Your task to perform on an android device: choose inbox layout in the gmail app Image 0: 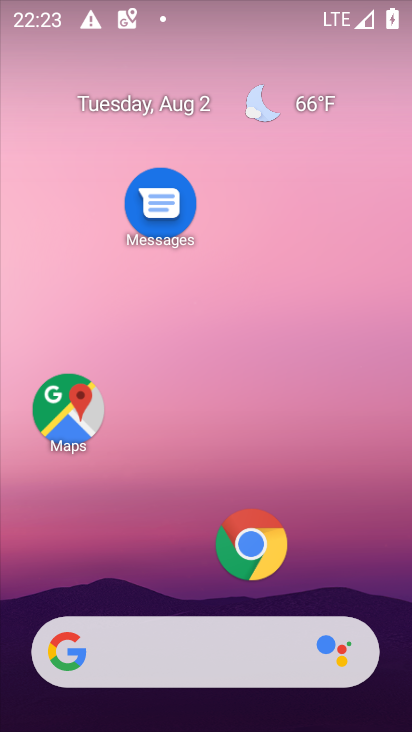
Step 0: drag from (187, 567) to (224, 113)
Your task to perform on an android device: choose inbox layout in the gmail app Image 1: 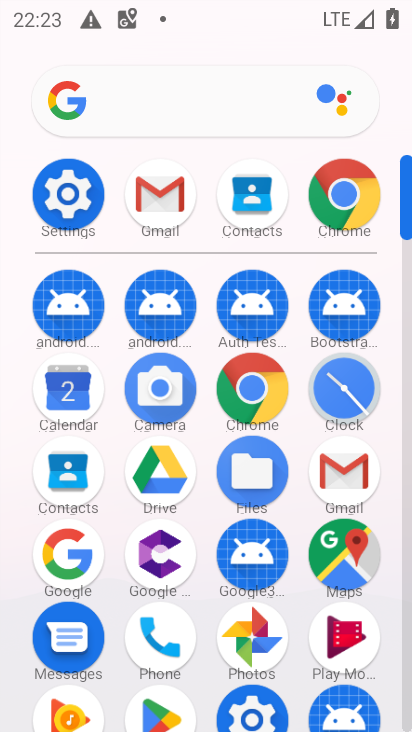
Step 1: click (190, 215)
Your task to perform on an android device: choose inbox layout in the gmail app Image 2: 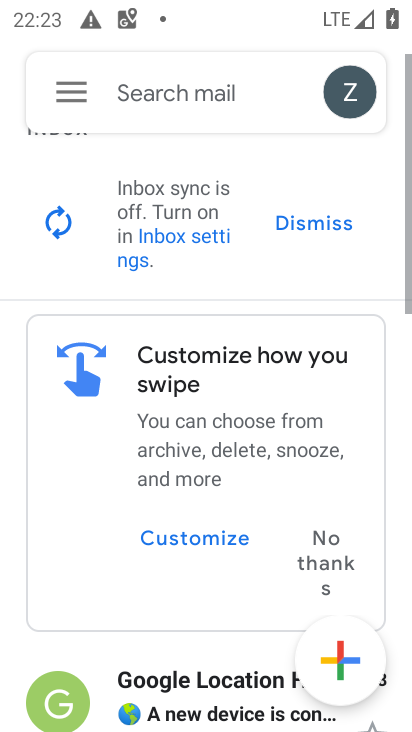
Step 2: click (73, 101)
Your task to perform on an android device: choose inbox layout in the gmail app Image 3: 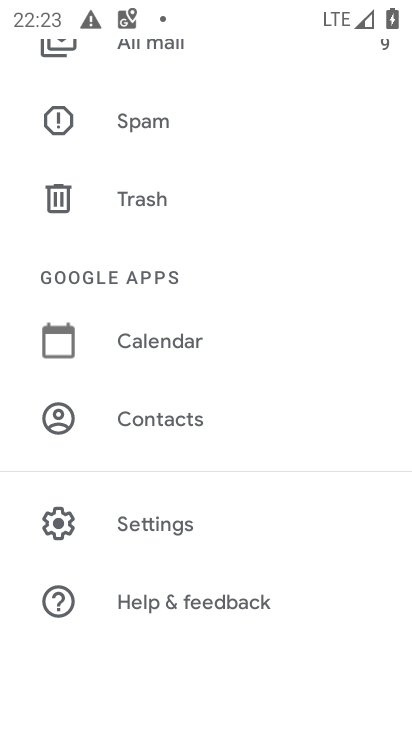
Step 3: click (177, 517)
Your task to perform on an android device: choose inbox layout in the gmail app Image 4: 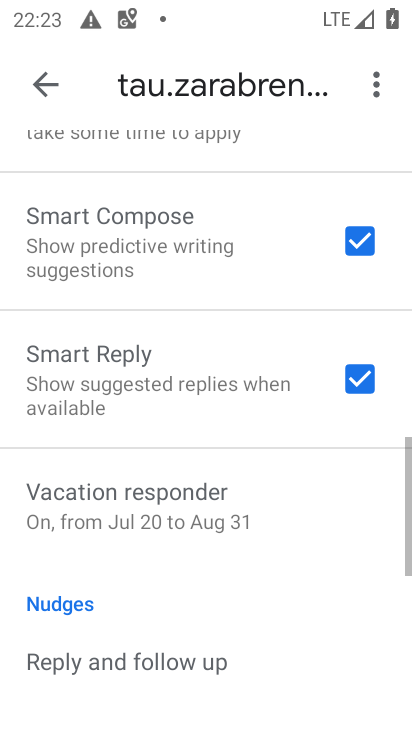
Step 4: drag from (196, 240) to (202, 555)
Your task to perform on an android device: choose inbox layout in the gmail app Image 5: 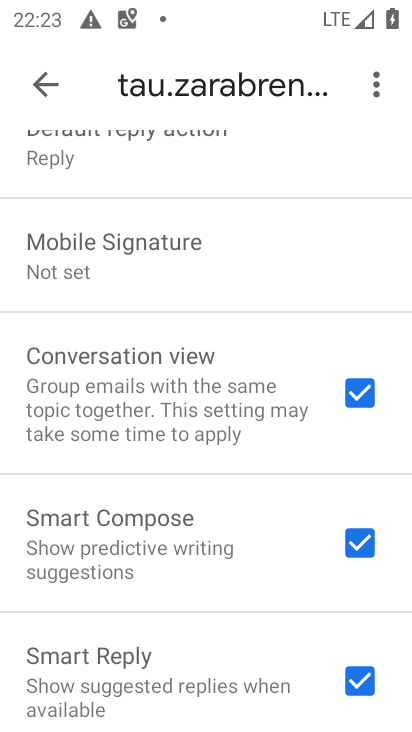
Step 5: drag from (152, 202) to (199, 551)
Your task to perform on an android device: choose inbox layout in the gmail app Image 6: 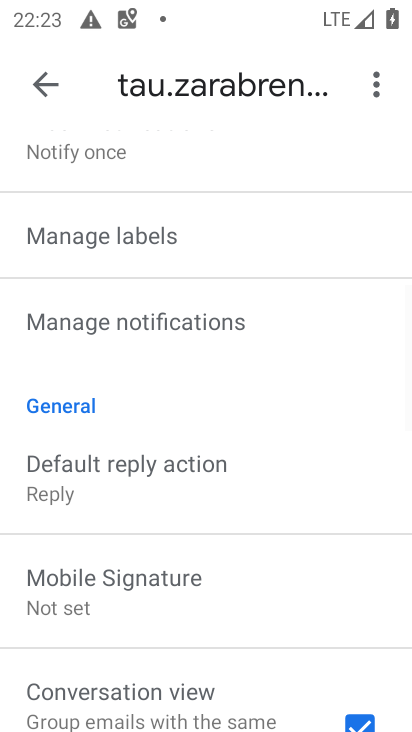
Step 6: drag from (187, 187) to (243, 605)
Your task to perform on an android device: choose inbox layout in the gmail app Image 7: 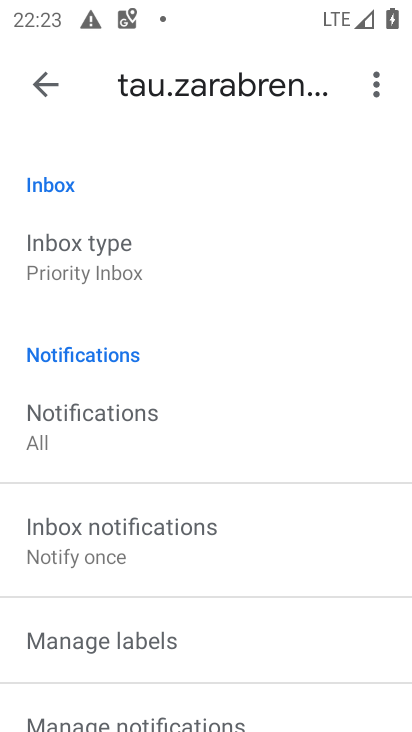
Step 7: click (171, 255)
Your task to perform on an android device: choose inbox layout in the gmail app Image 8: 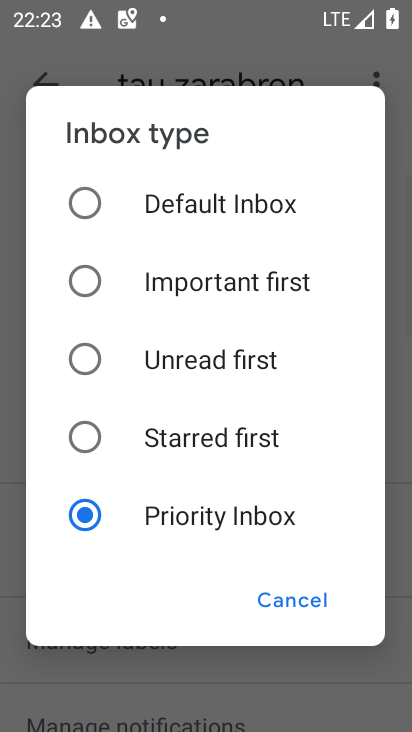
Step 8: click (171, 196)
Your task to perform on an android device: choose inbox layout in the gmail app Image 9: 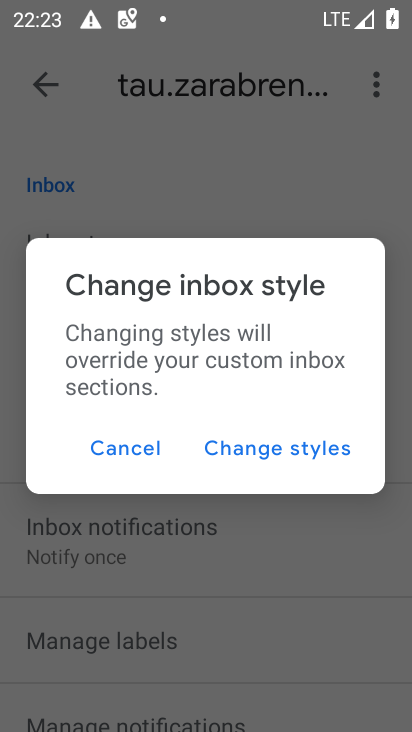
Step 9: click (335, 446)
Your task to perform on an android device: choose inbox layout in the gmail app Image 10: 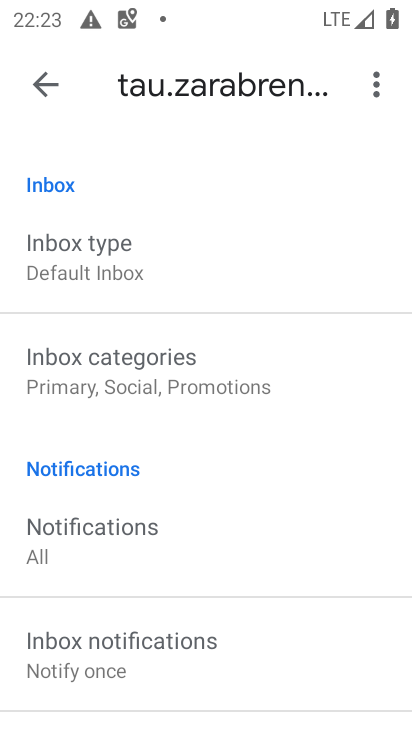
Step 10: task complete